Your task to perform on an android device: open a new tab in the chrome app Image 0: 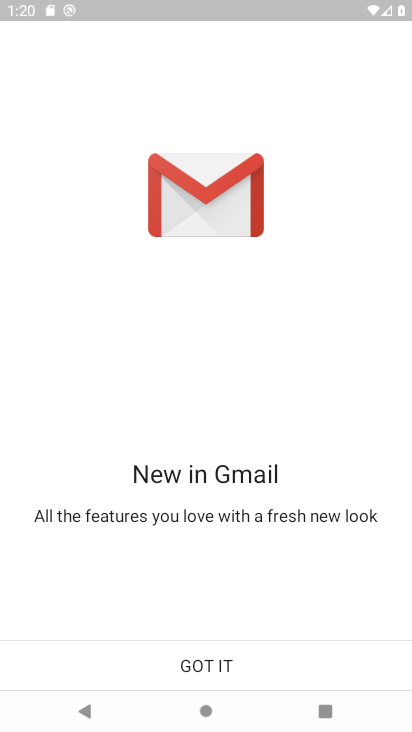
Step 0: click (263, 665)
Your task to perform on an android device: open a new tab in the chrome app Image 1: 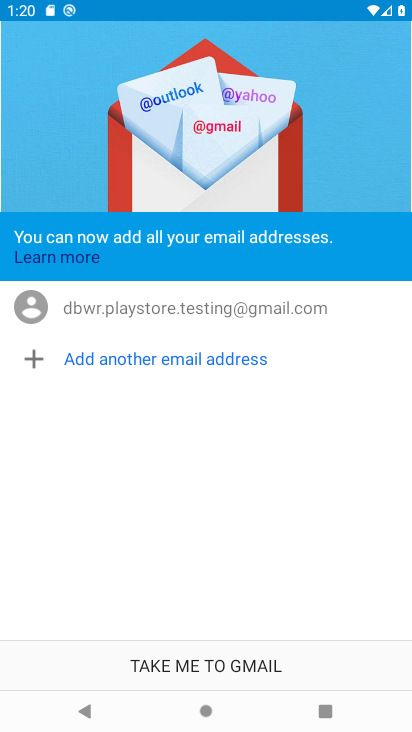
Step 1: click (263, 665)
Your task to perform on an android device: open a new tab in the chrome app Image 2: 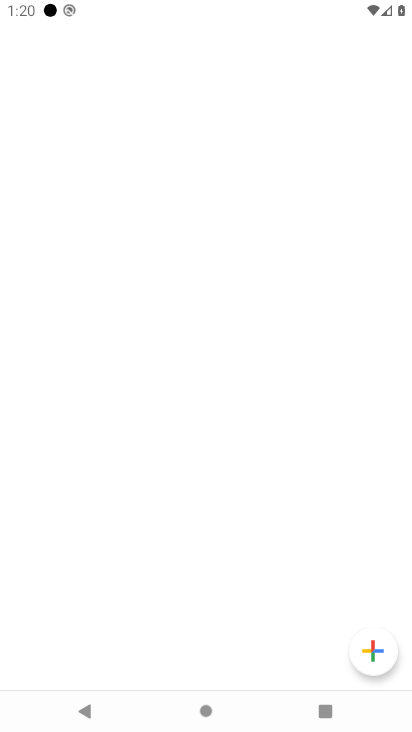
Step 2: press home button
Your task to perform on an android device: open a new tab in the chrome app Image 3: 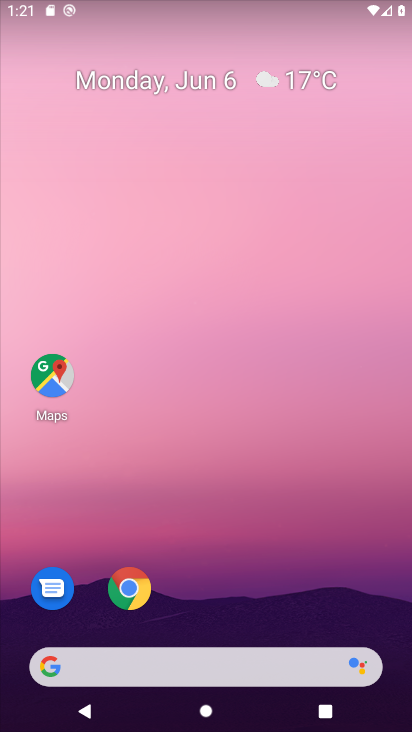
Step 3: click (134, 593)
Your task to perform on an android device: open a new tab in the chrome app Image 4: 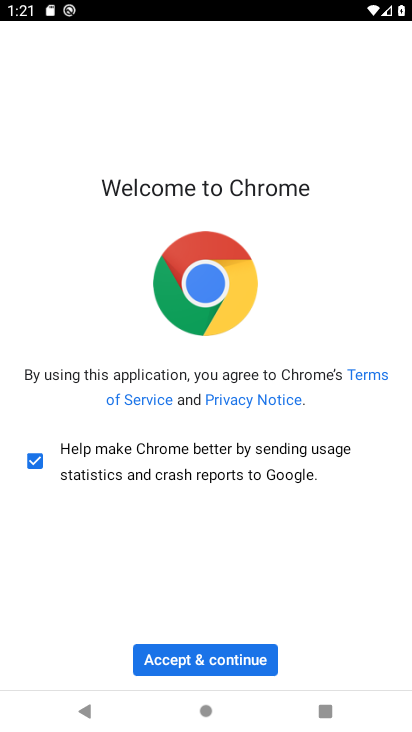
Step 4: click (207, 665)
Your task to perform on an android device: open a new tab in the chrome app Image 5: 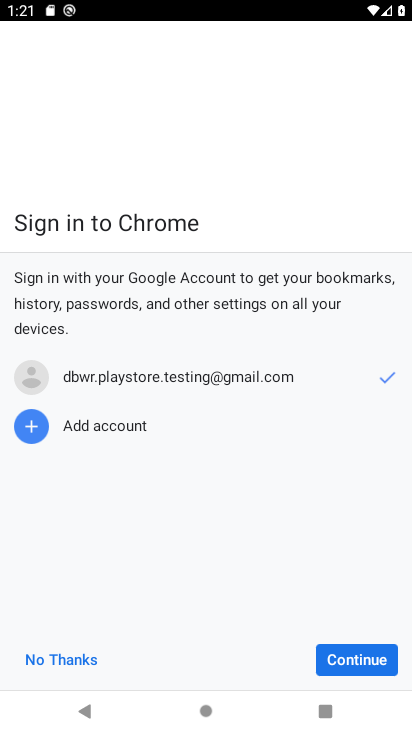
Step 5: click (362, 657)
Your task to perform on an android device: open a new tab in the chrome app Image 6: 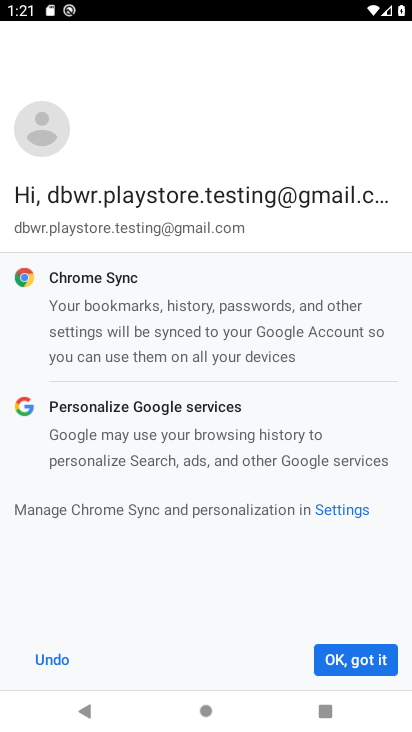
Step 6: click (364, 655)
Your task to perform on an android device: open a new tab in the chrome app Image 7: 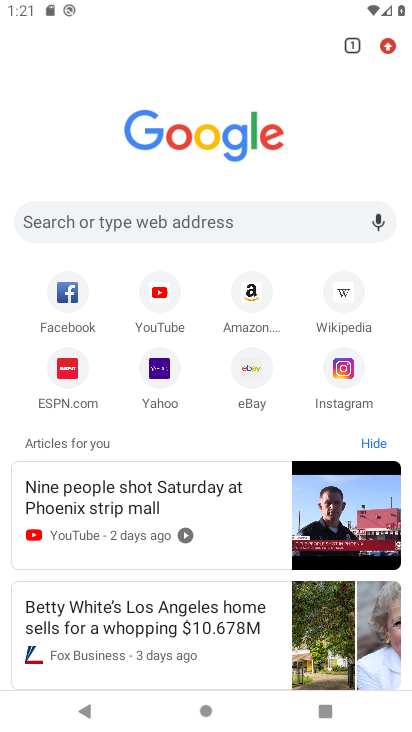
Step 7: click (390, 52)
Your task to perform on an android device: open a new tab in the chrome app Image 8: 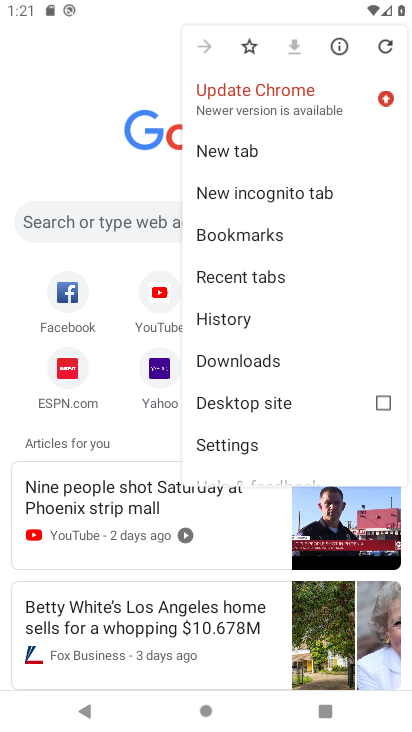
Step 8: click (221, 162)
Your task to perform on an android device: open a new tab in the chrome app Image 9: 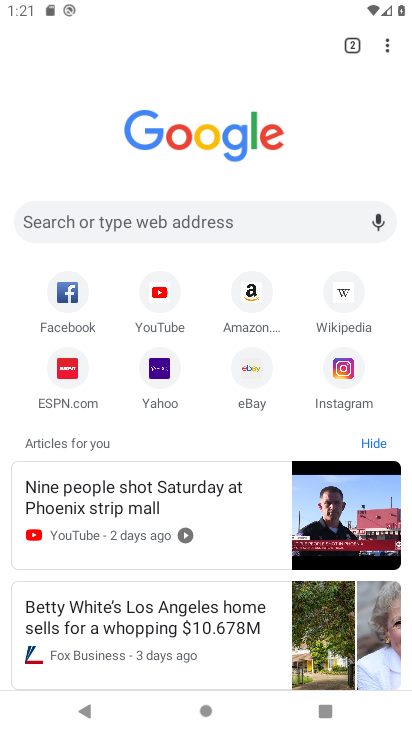
Step 9: task complete